Your task to perform on an android device: open app "Google Drive" (install if not already installed) Image 0: 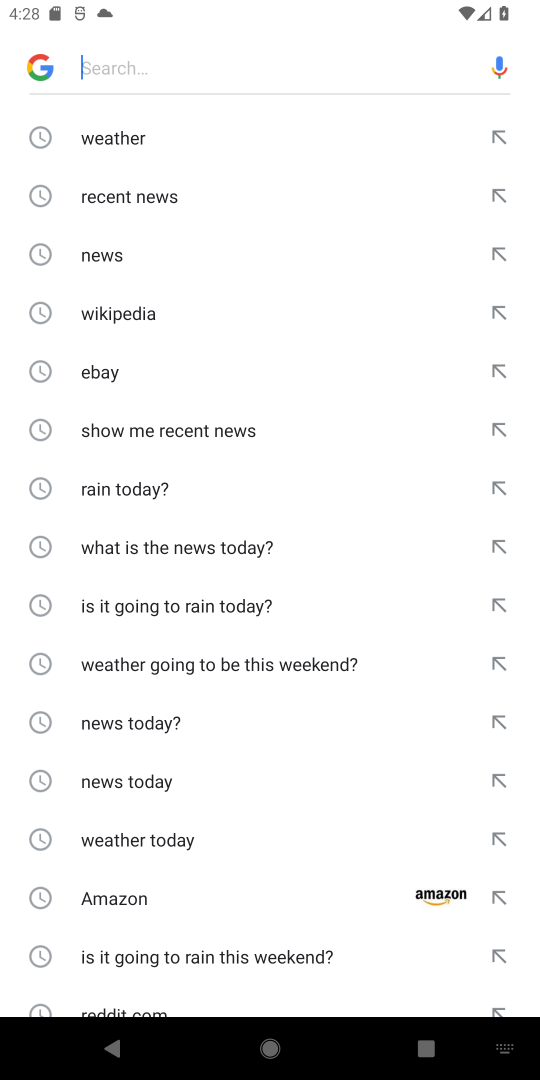
Step 0: press home button
Your task to perform on an android device: open app "Google Drive" (install if not already installed) Image 1: 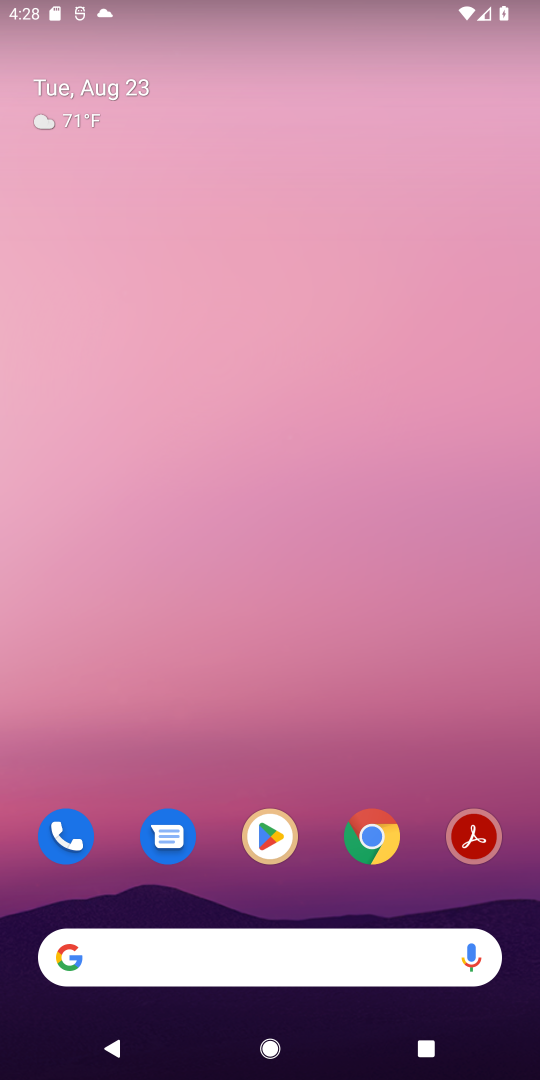
Step 1: click (267, 835)
Your task to perform on an android device: open app "Google Drive" (install if not already installed) Image 2: 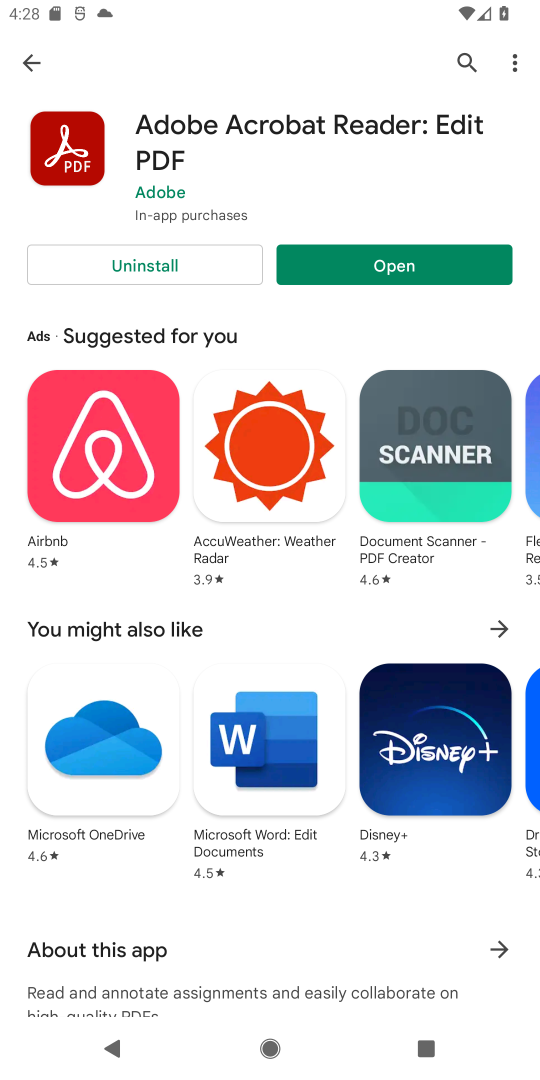
Step 2: click (463, 53)
Your task to perform on an android device: open app "Google Drive" (install if not already installed) Image 3: 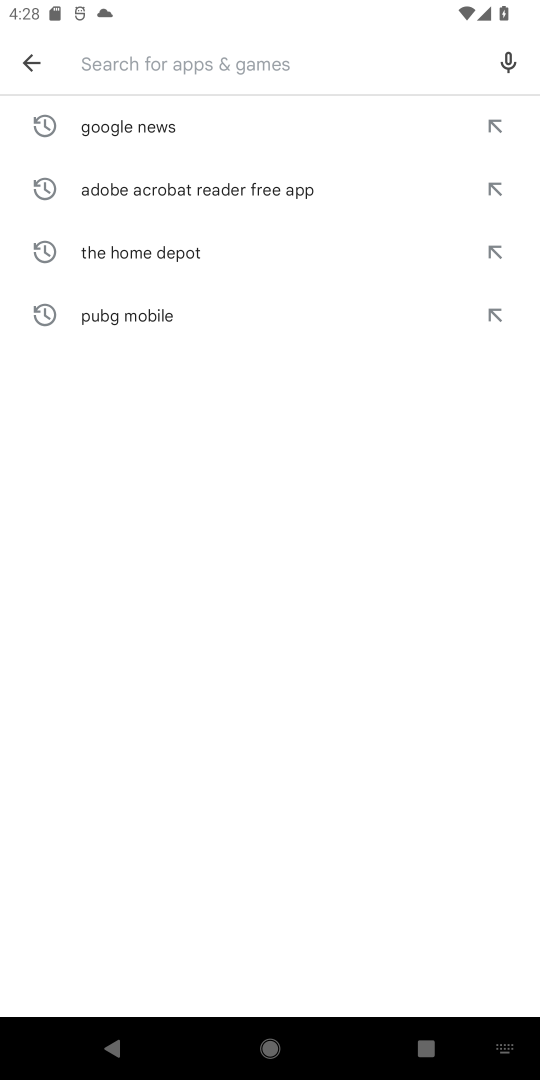
Step 3: type "Google Drive"
Your task to perform on an android device: open app "Google Drive" (install if not already installed) Image 4: 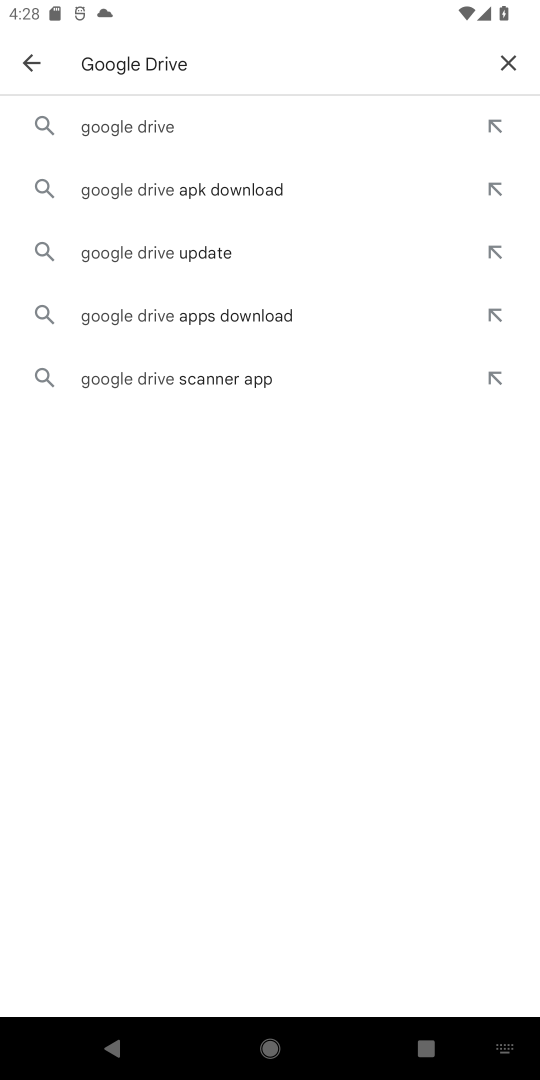
Step 4: click (110, 121)
Your task to perform on an android device: open app "Google Drive" (install if not already installed) Image 5: 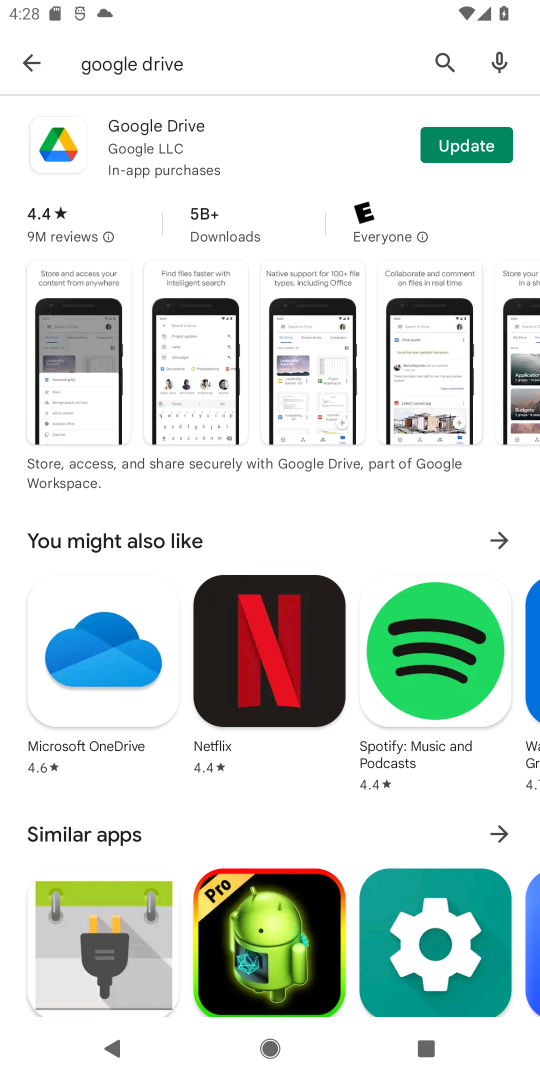
Step 5: click (466, 144)
Your task to perform on an android device: open app "Google Drive" (install if not already installed) Image 6: 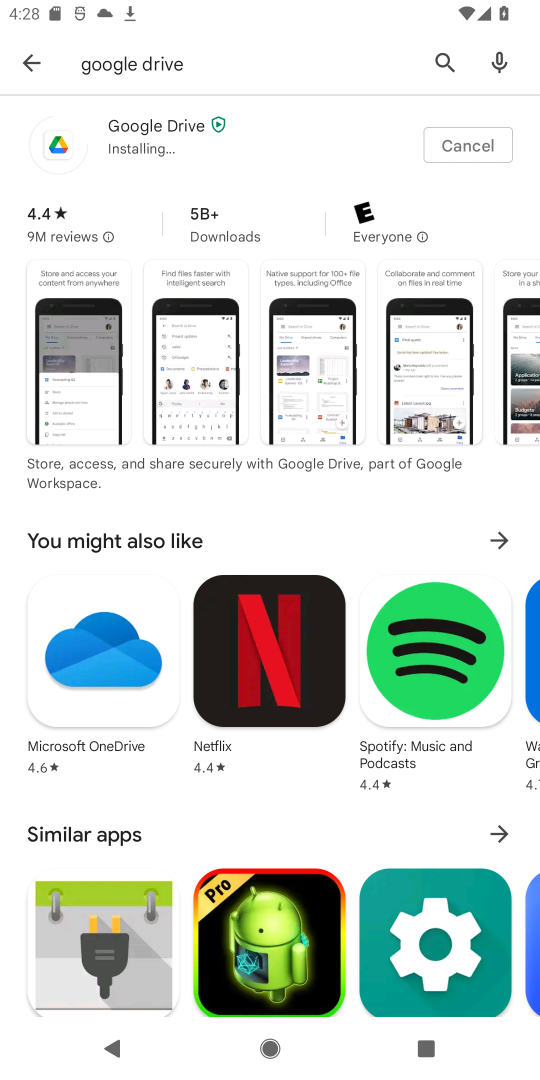
Step 6: click (129, 134)
Your task to perform on an android device: open app "Google Drive" (install if not already installed) Image 7: 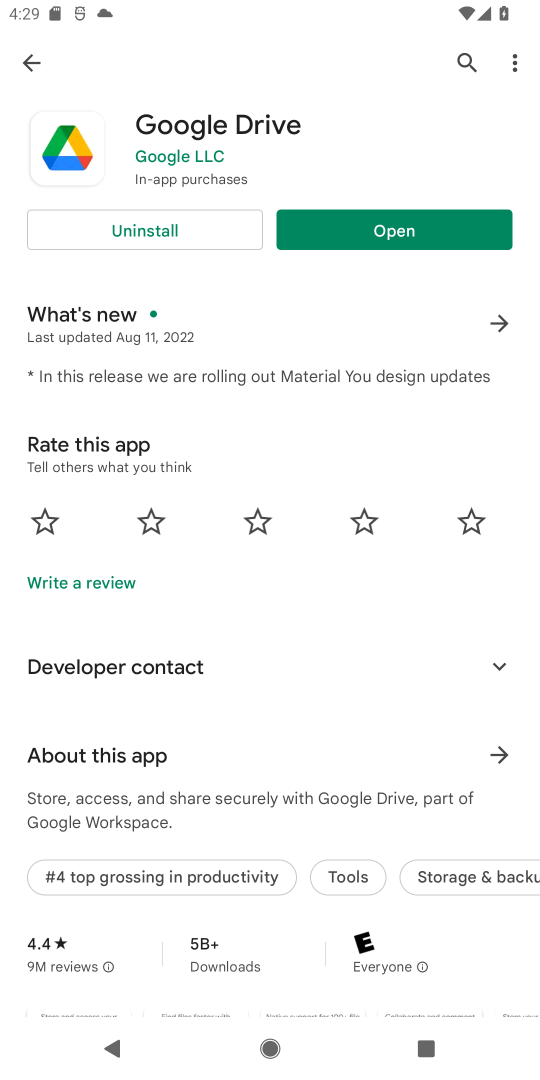
Step 7: click (396, 231)
Your task to perform on an android device: open app "Google Drive" (install if not already installed) Image 8: 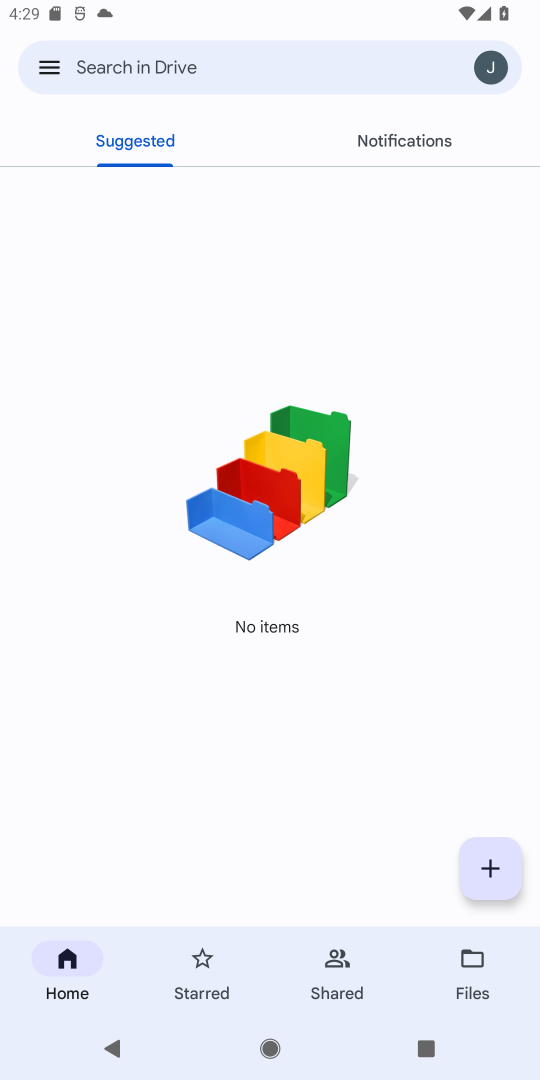
Step 8: task complete